Your task to perform on an android device: Go to CNN.com Image 0: 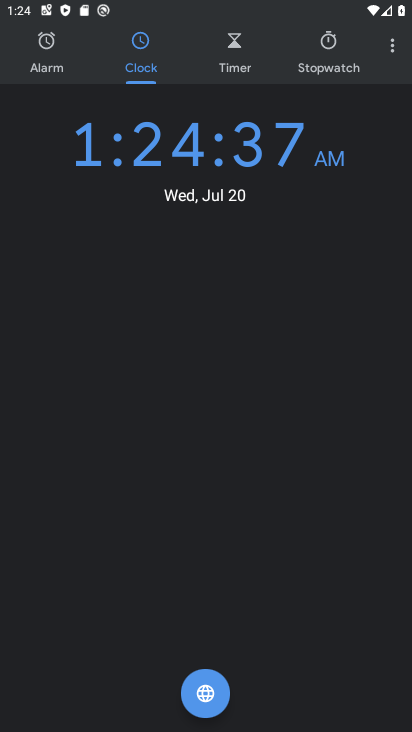
Step 0: press home button
Your task to perform on an android device: Go to CNN.com Image 1: 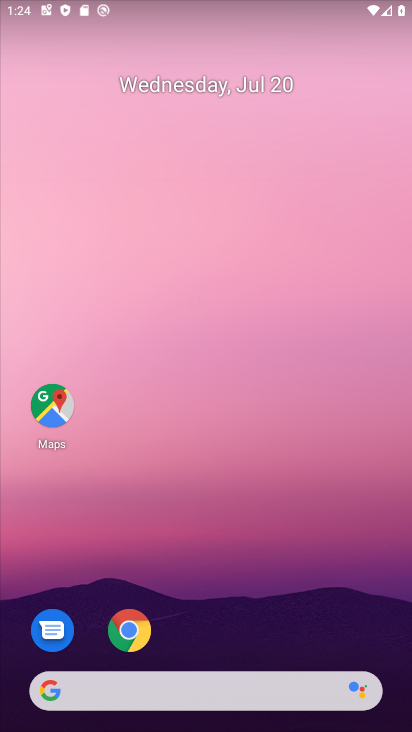
Step 1: drag from (244, 645) to (268, 16)
Your task to perform on an android device: Go to CNN.com Image 2: 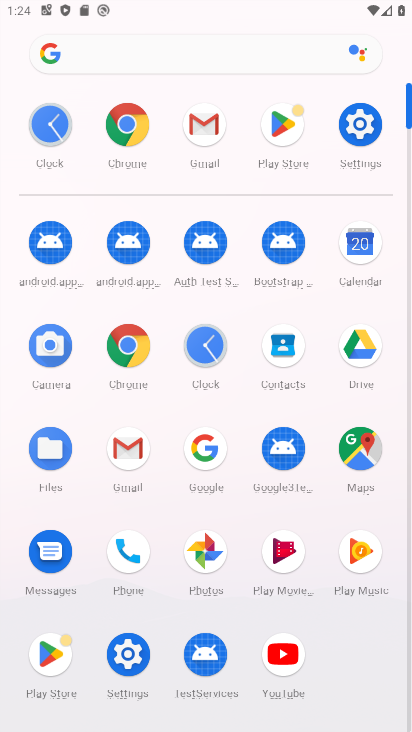
Step 2: click (138, 129)
Your task to perform on an android device: Go to CNN.com Image 3: 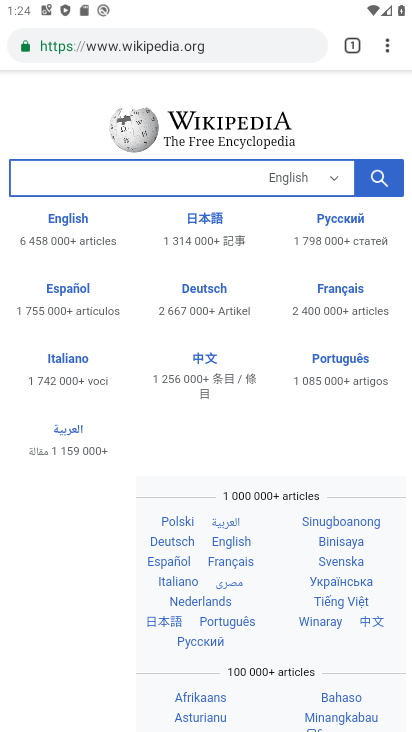
Step 3: click (234, 40)
Your task to perform on an android device: Go to CNN.com Image 4: 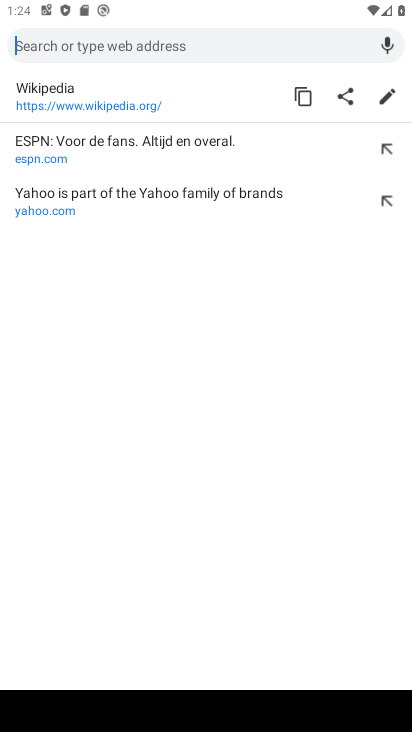
Step 4: type "cnn.com"
Your task to perform on an android device: Go to CNN.com Image 5: 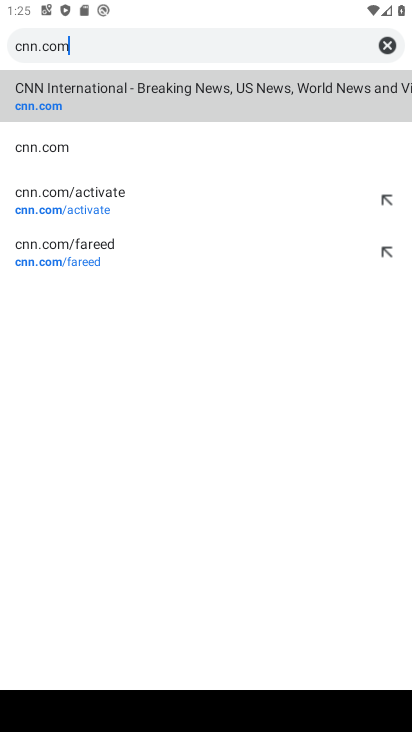
Step 5: click (64, 109)
Your task to perform on an android device: Go to CNN.com Image 6: 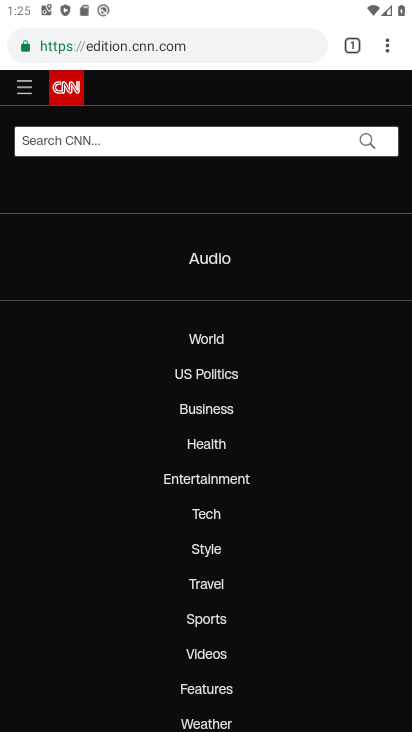
Step 6: task complete